Your task to perform on an android device: Open Wikipedia Image 0: 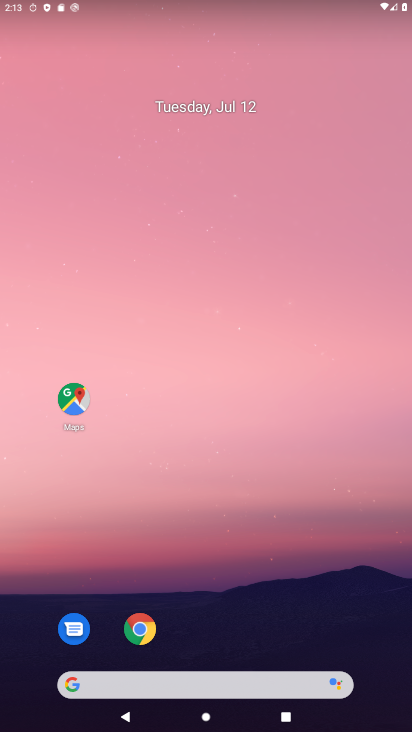
Step 0: drag from (237, 627) to (291, 110)
Your task to perform on an android device: Open Wikipedia Image 1: 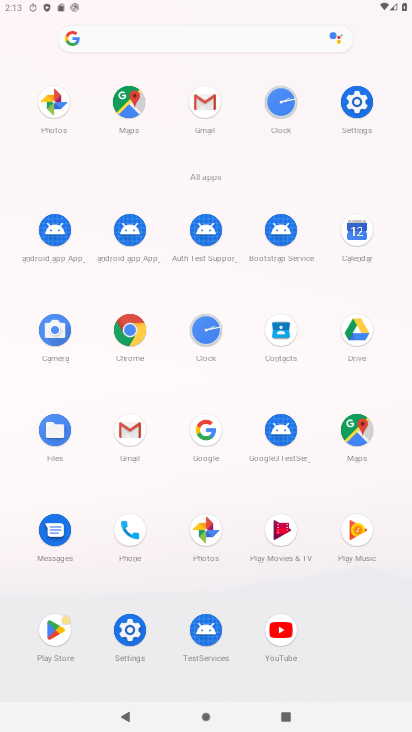
Step 1: click (142, 331)
Your task to perform on an android device: Open Wikipedia Image 2: 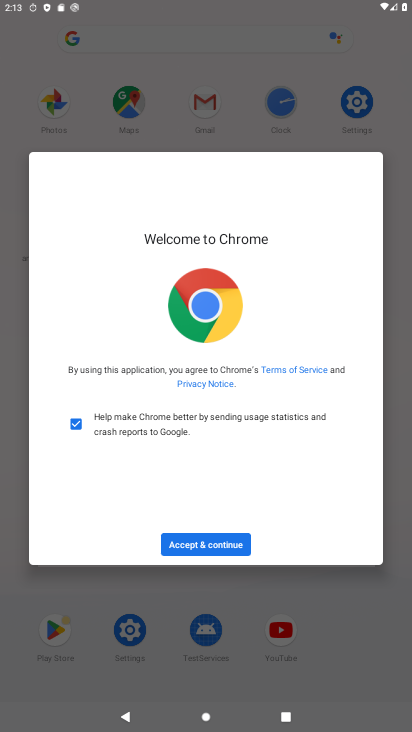
Step 2: click (228, 551)
Your task to perform on an android device: Open Wikipedia Image 3: 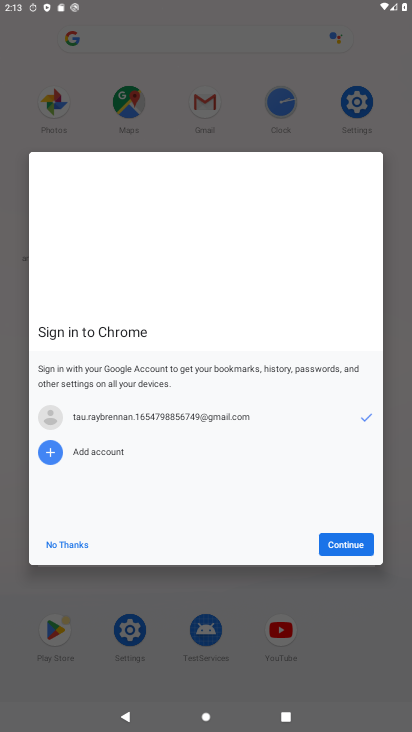
Step 3: click (336, 553)
Your task to perform on an android device: Open Wikipedia Image 4: 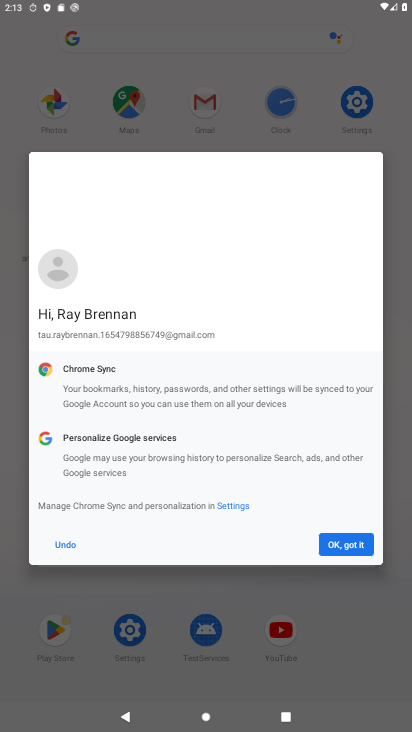
Step 4: click (361, 550)
Your task to perform on an android device: Open Wikipedia Image 5: 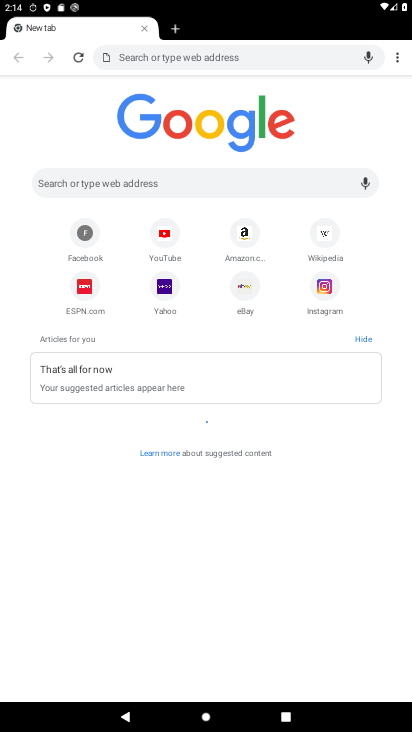
Step 5: click (328, 238)
Your task to perform on an android device: Open Wikipedia Image 6: 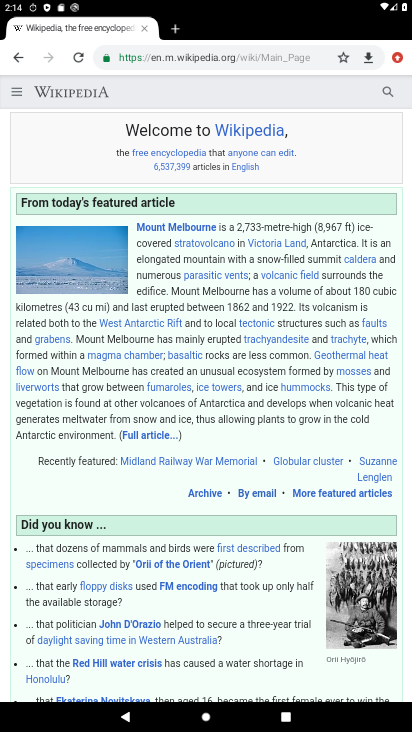
Step 6: task complete